Your task to perform on an android device: Open wifi settings Image 0: 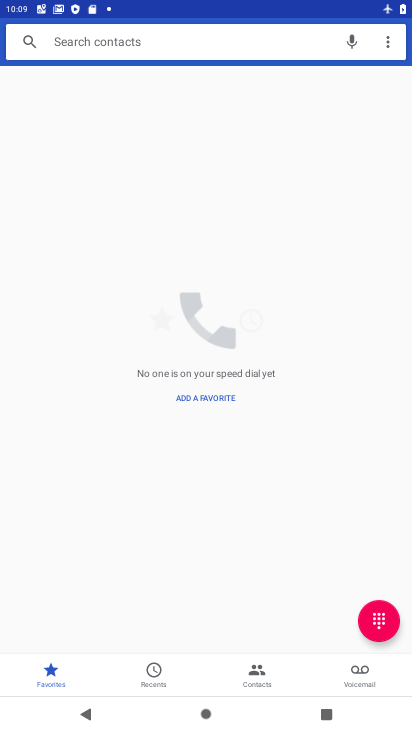
Step 0: press home button
Your task to perform on an android device: Open wifi settings Image 1: 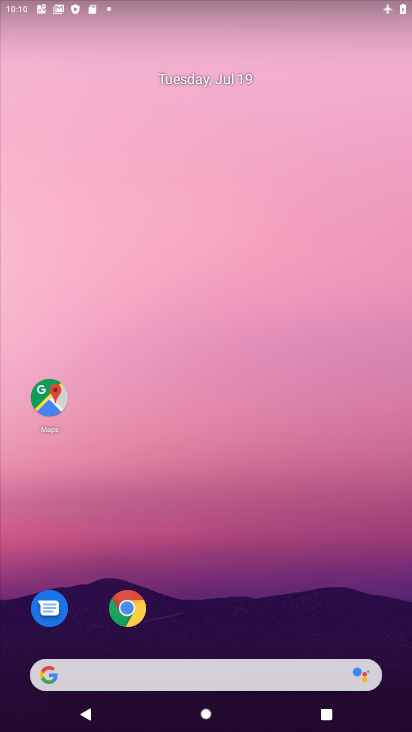
Step 1: drag from (276, 636) to (290, 38)
Your task to perform on an android device: Open wifi settings Image 2: 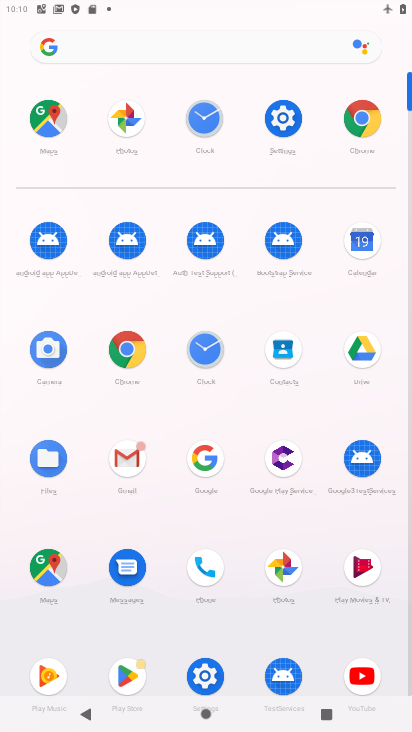
Step 2: click (283, 107)
Your task to perform on an android device: Open wifi settings Image 3: 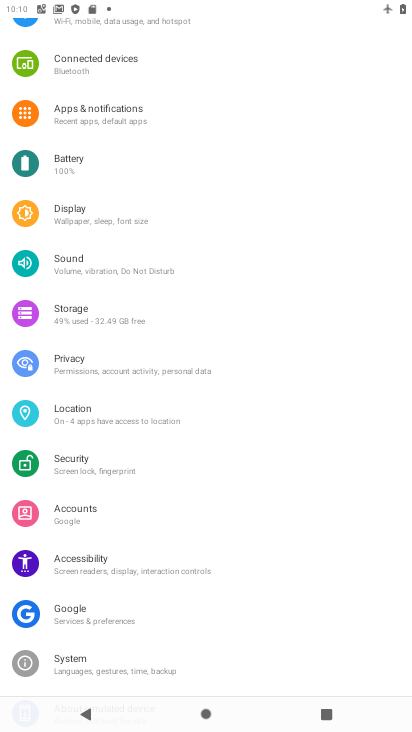
Step 3: drag from (97, 38) to (94, 405)
Your task to perform on an android device: Open wifi settings Image 4: 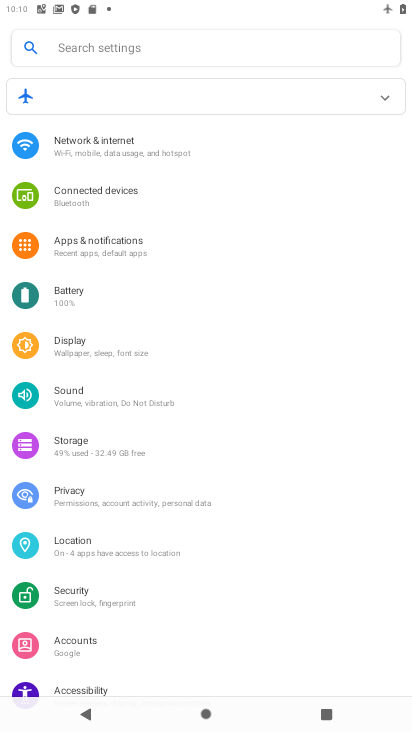
Step 4: click (89, 143)
Your task to perform on an android device: Open wifi settings Image 5: 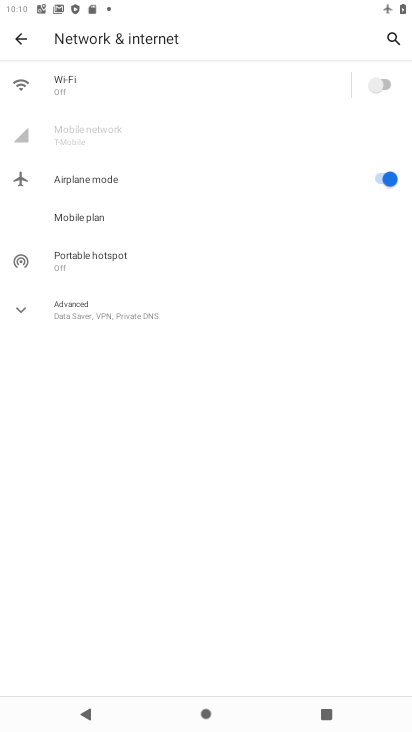
Step 5: click (388, 77)
Your task to perform on an android device: Open wifi settings Image 6: 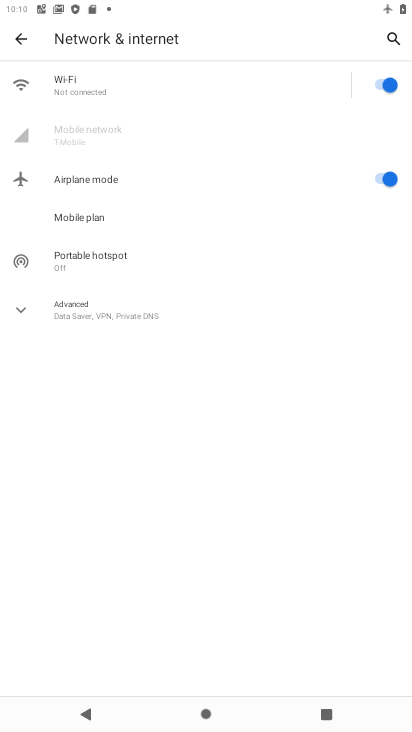
Step 6: click (284, 79)
Your task to perform on an android device: Open wifi settings Image 7: 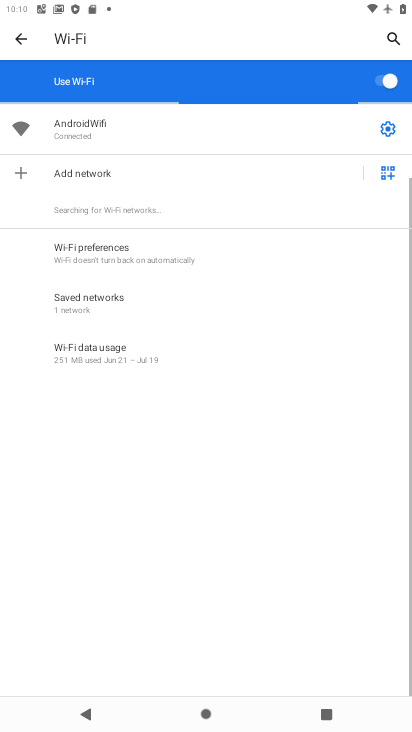
Step 7: click (388, 129)
Your task to perform on an android device: Open wifi settings Image 8: 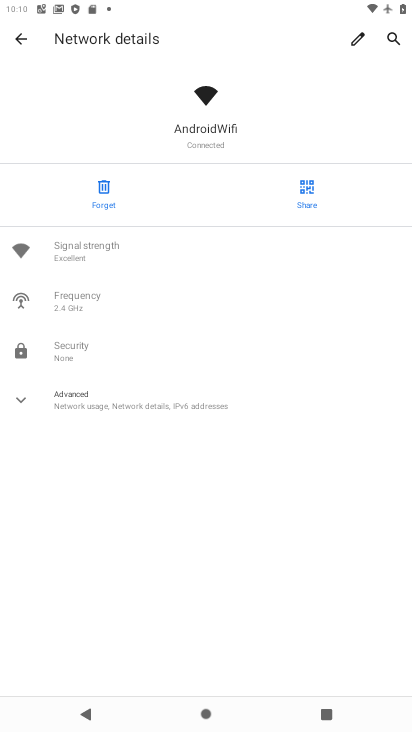
Step 8: task complete